Your task to perform on an android device: turn on notifications settings in the gmail app Image 0: 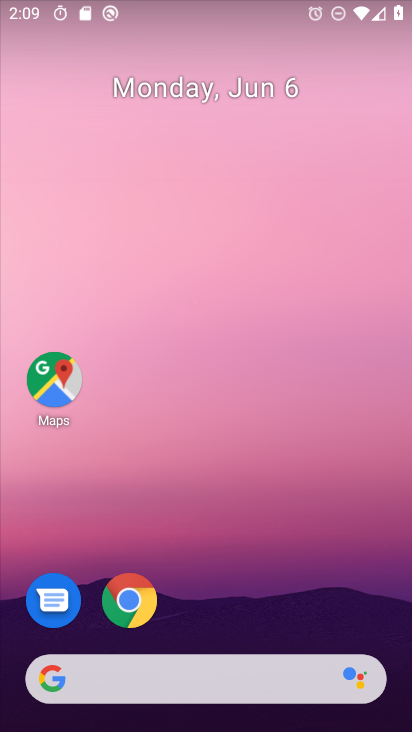
Step 0: drag from (208, 620) to (185, 240)
Your task to perform on an android device: turn on notifications settings in the gmail app Image 1: 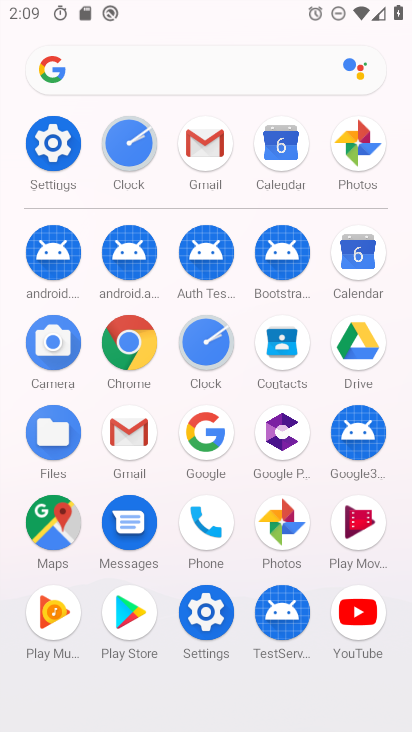
Step 1: click (200, 157)
Your task to perform on an android device: turn on notifications settings in the gmail app Image 2: 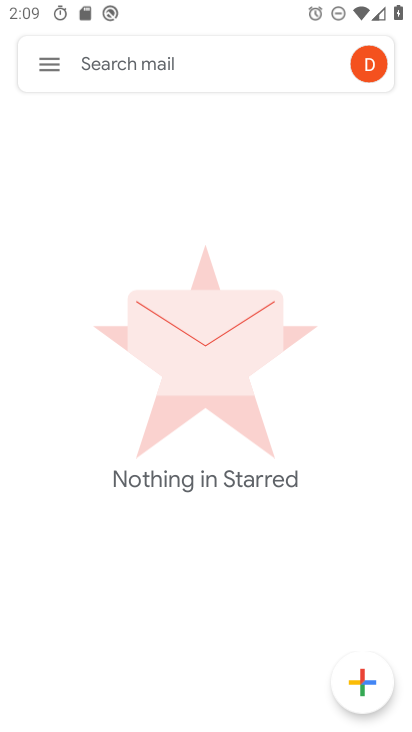
Step 2: click (43, 73)
Your task to perform on an android device: turn on notifications settings in the gmail app Image 3: 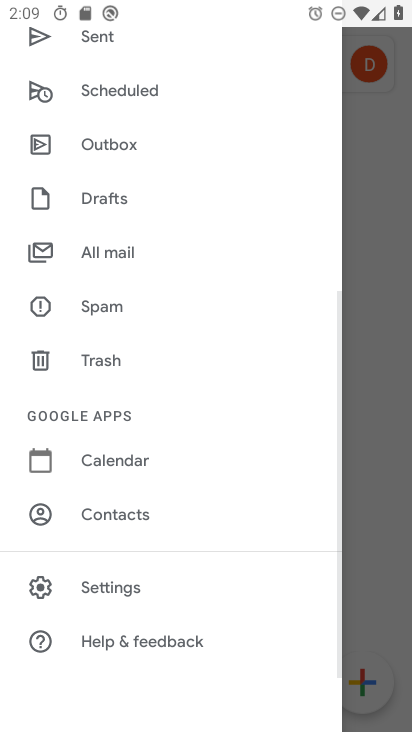
Step 3: click (142, 591)
Your task to perform on an android device: turn on notifications settings in the gmail app Image 4: 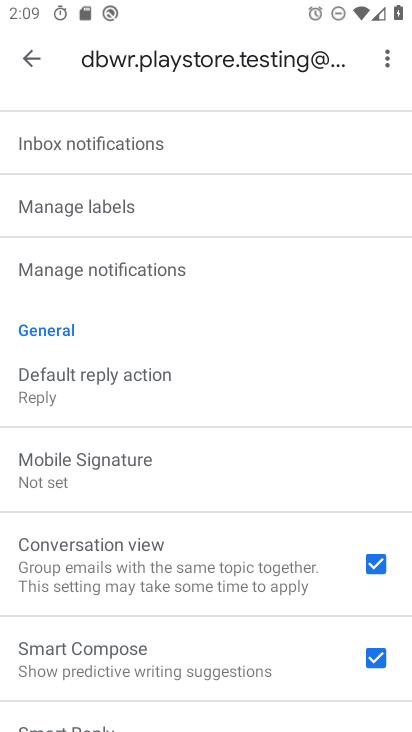
Step 4: drag from (177, 597) to (186, 374)
Your task to perform on an android device: turn on notifications settings in the gmail app Image 5: 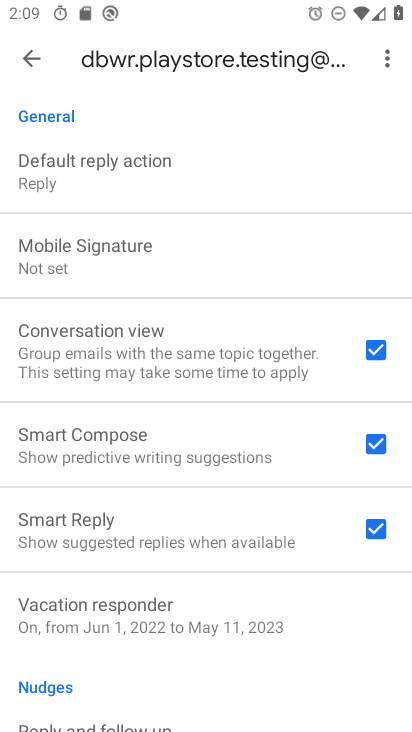
Step 5: drag from (156, 216) to (165, 403)
Your task to perform on an android device: turn on notifications settings in the gmail app Image 6: 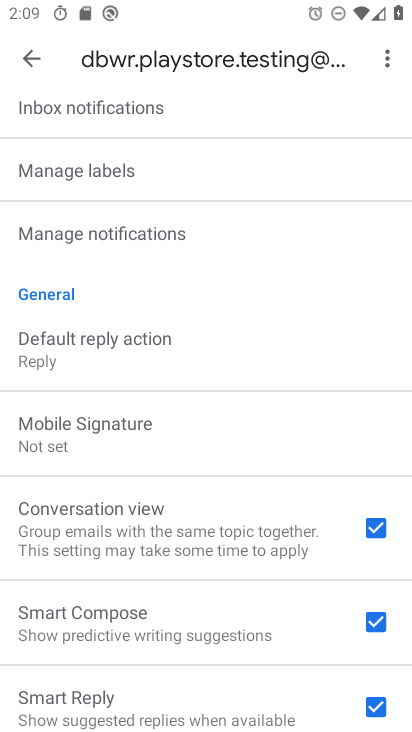
Step 6: click (165, 228)
Your task to perform on an android device: turn on notifications settings in the gmail app Image 7: 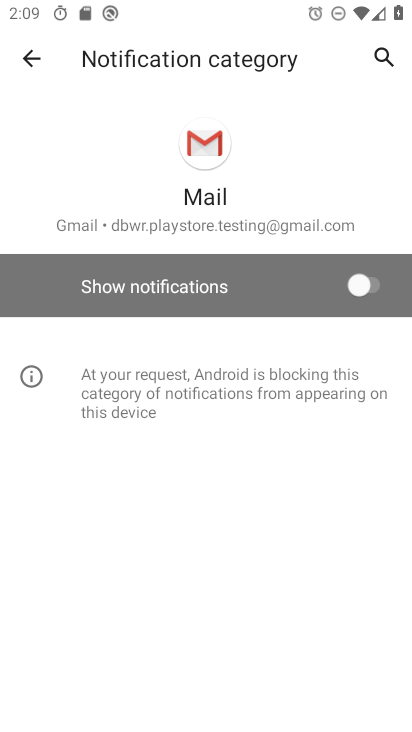
Step 7: click (381, 277)
Your task to perform on an android device: turn on notifications settings in the gmail app Image 8: 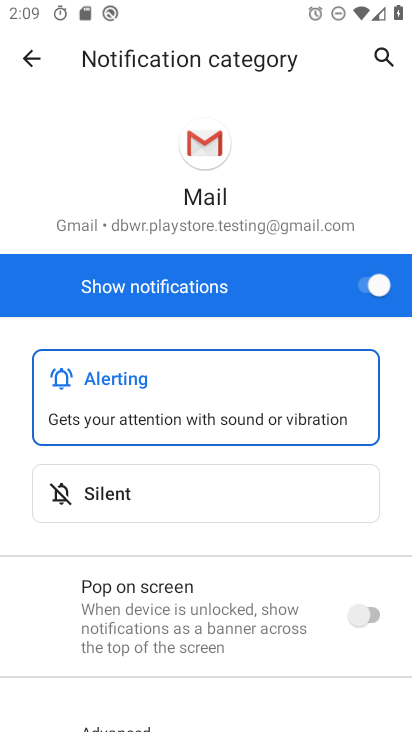
Step 8: task complete